Your task to perform on an android device: check storage Image 0: 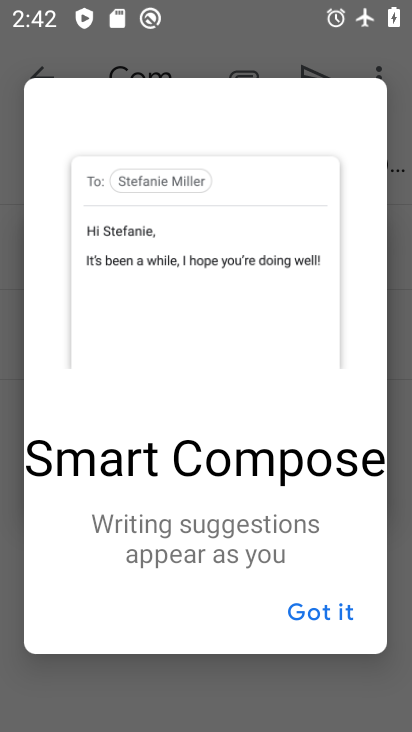
Step 0: press home button
Your task to perform on an android device: check storage Image 1: 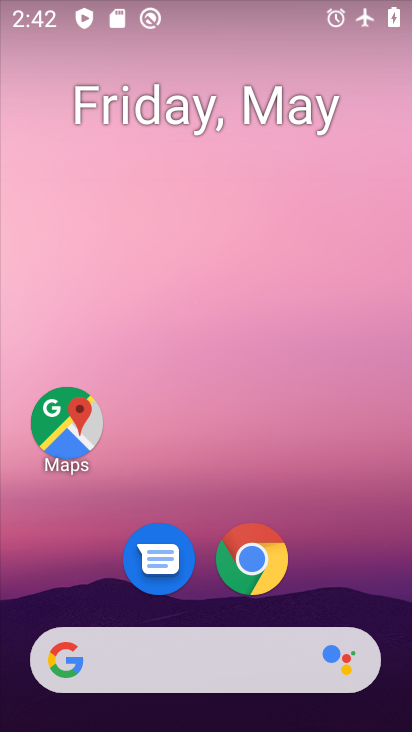
Step 1: drag from (351, 594) to (241, 35)
Your task to perform on an android device: check storage Image 2: 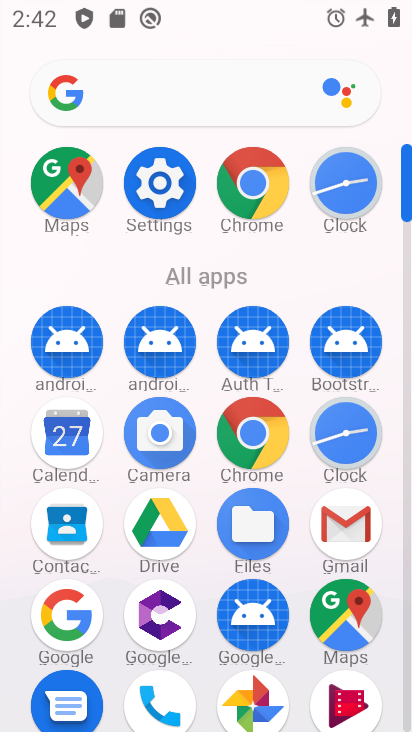
Step 2: click (140, 180)
Your task to perform on an android device: check storage Image 3: 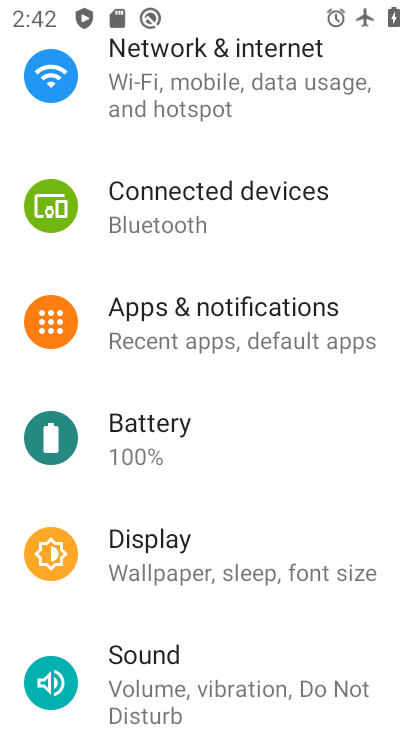
Step 3: click (165, 164)
Your task to perform on an android device: check storage Image 4: 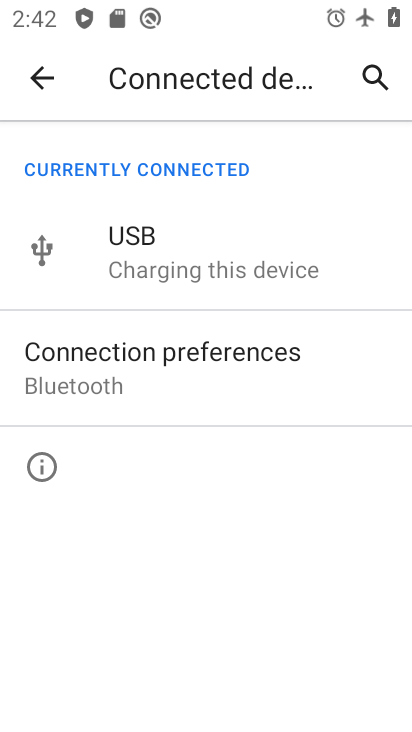
Step 4: click (45, 73)
Your task to perform on an android device: check storage Image 5: 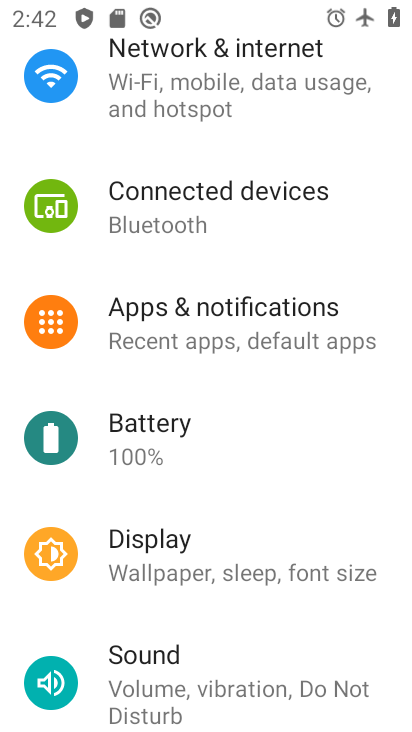
Step 5: click (203, 91)
Your task to perform on an android device: check storage Image 6: 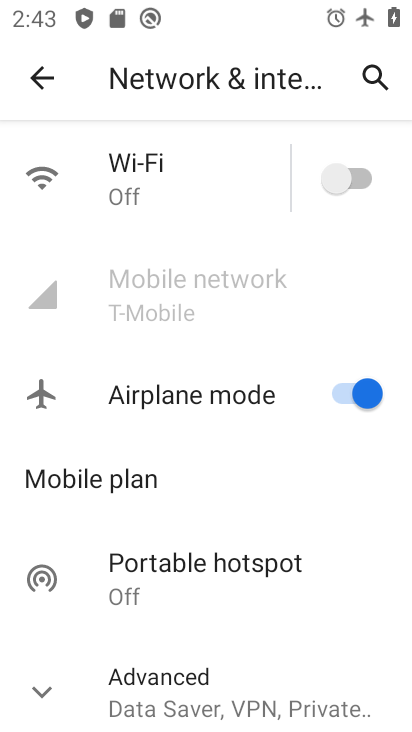
Step 6: click (327, 415)
Your task to perform on an android device: check storage Image 7: 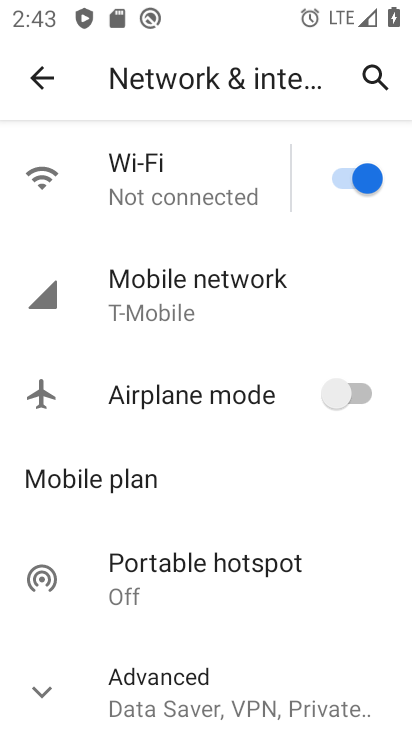
Step 7: click (26, 69)
Your task to perform on an android device: check storage Image 8: 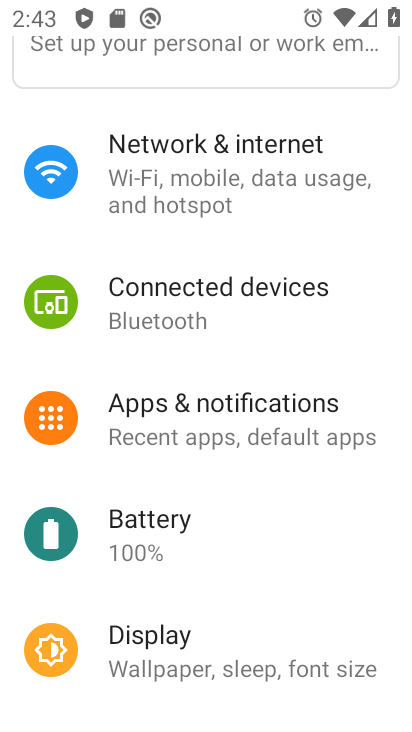
Step 8: drag from (183, 603) to (205, 316)
Your task to perform on an android device: check storage Image 9: 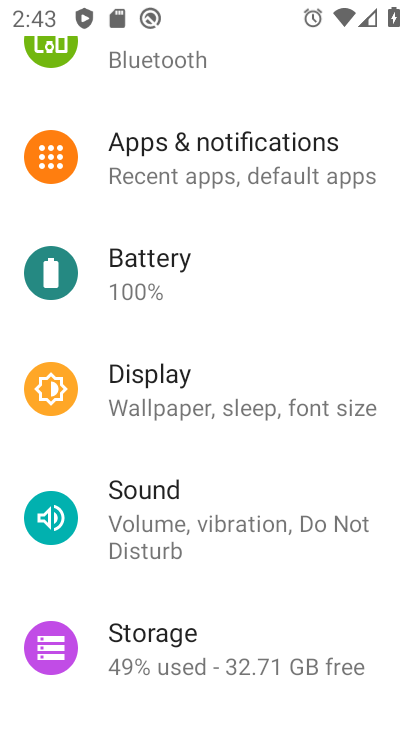
Step 9: click (230, 613)
Your task to perform on an android device: check storage Image 10: 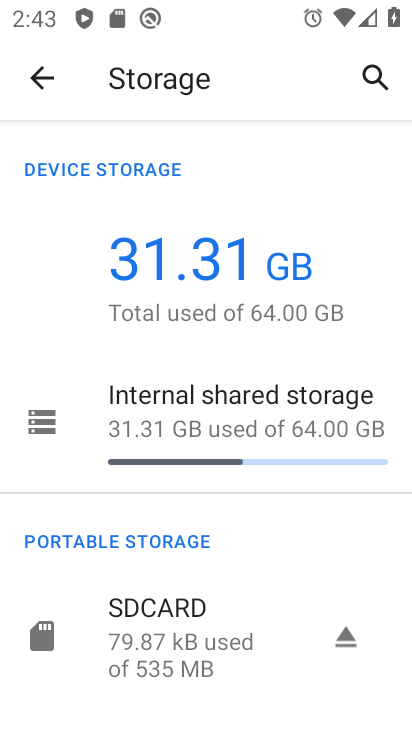
Step 10: task complete